Your task to perform on an android device: add a contact Image 0: 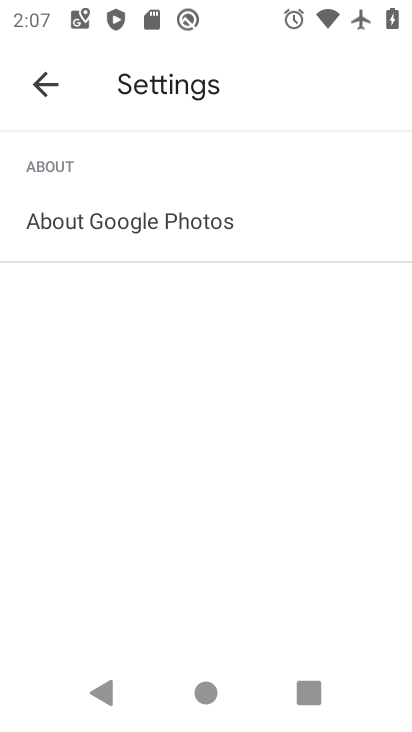
Step 0: press home button
Your task to perform on an android device: add a contact Image 1: 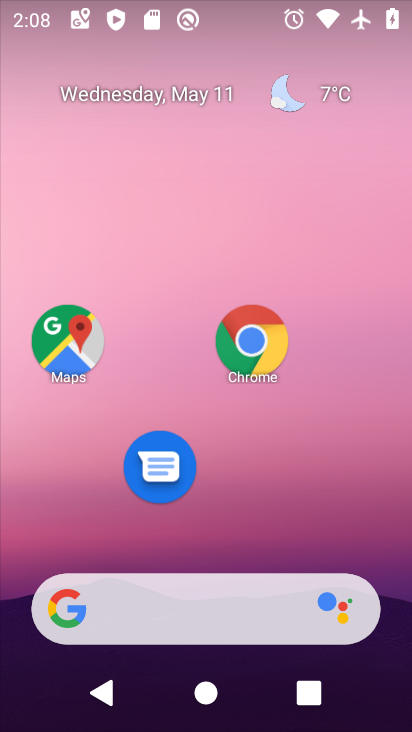
Step 1: drag from (206, 534) to (295, 148)
Your task to perform on an android device: add a contact Image 2: 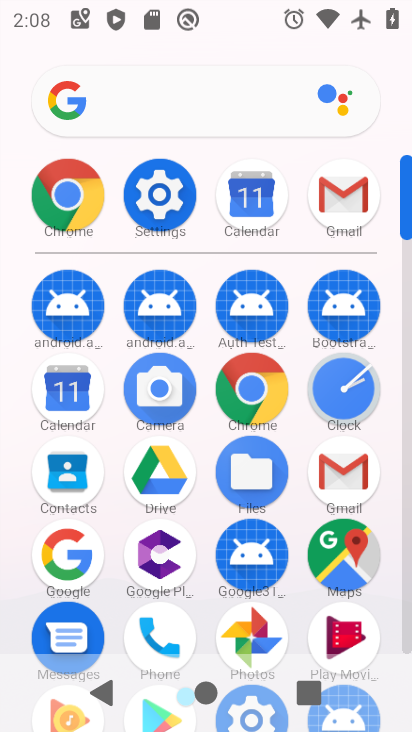
Step 2: click (65, 486)
Your task to perform on an android device: add a contact Image 3: 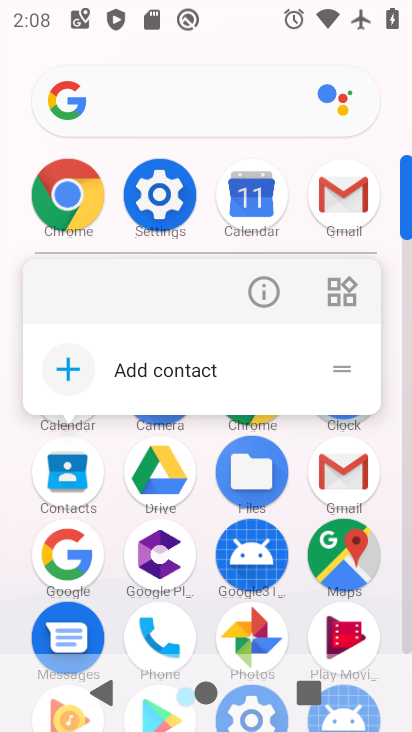
Step 3: click (61, 471)
Your task to perform on an android device: add a contact Image 4: 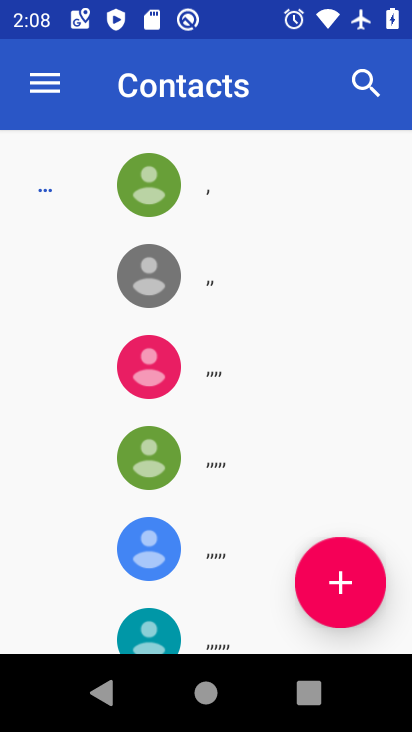
Step 4: click (335, 588)
Your task to perform on an android device: add a contact Image 5: 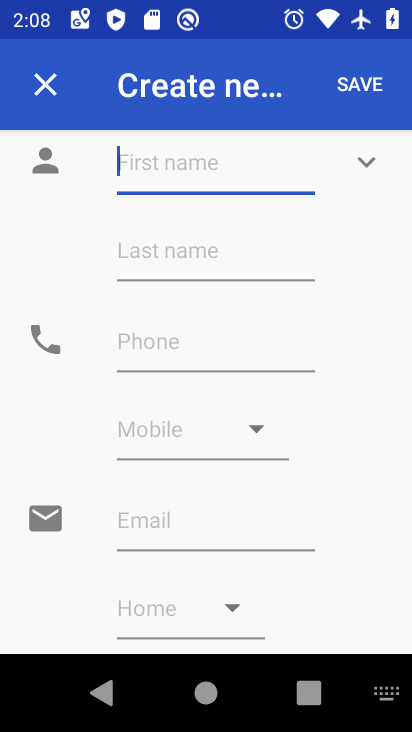
Step 5: type "ytgh"
Your task to perform on an android device: add a contact Image 6: 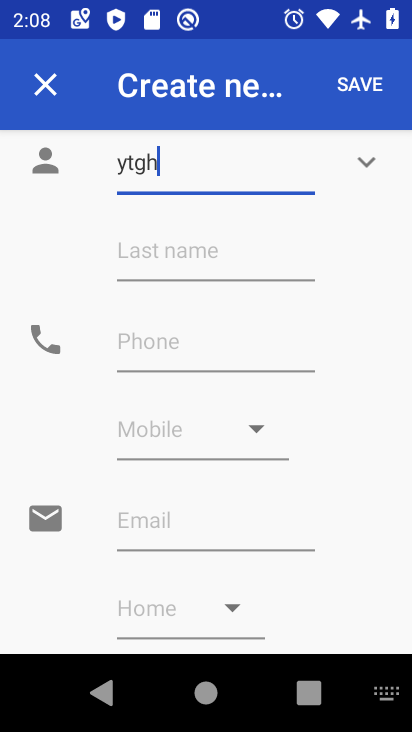
Step 6: click (123, 345)
Your task to perform on an android device: add a contact Image 7: 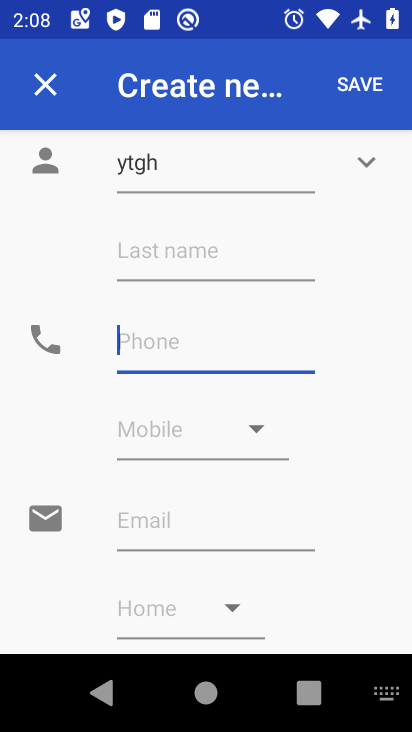
Step 7: type "786"
Your task to perform on an android device: add a contact Image 8: 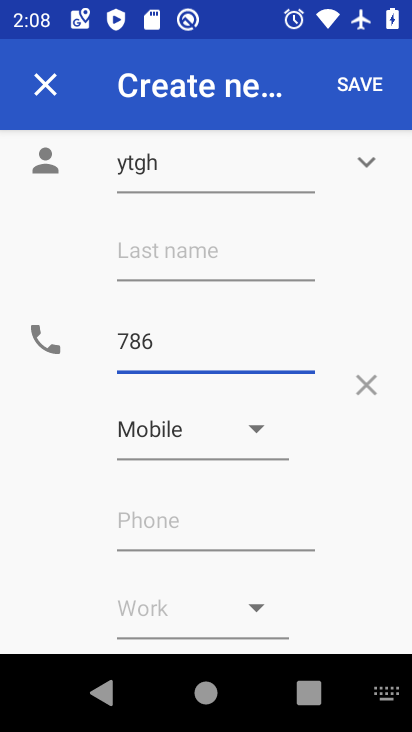
Step 8: click (345, 93)
Your task to perform on an android device: add a contact Image 9: 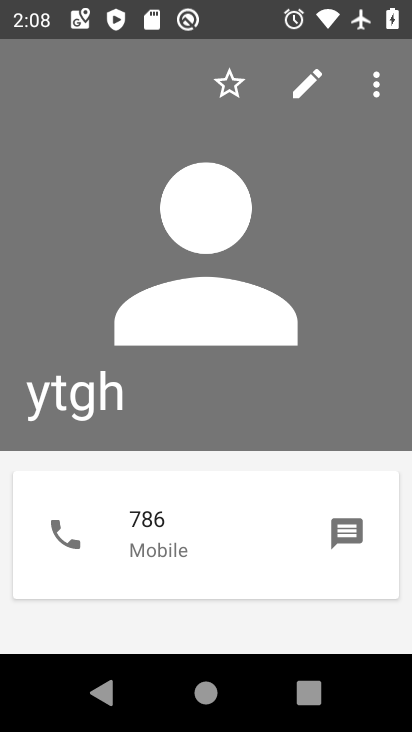
Step 9: task complete